Your task to perform on an android device: check the backup settings in the google photos Image 0: 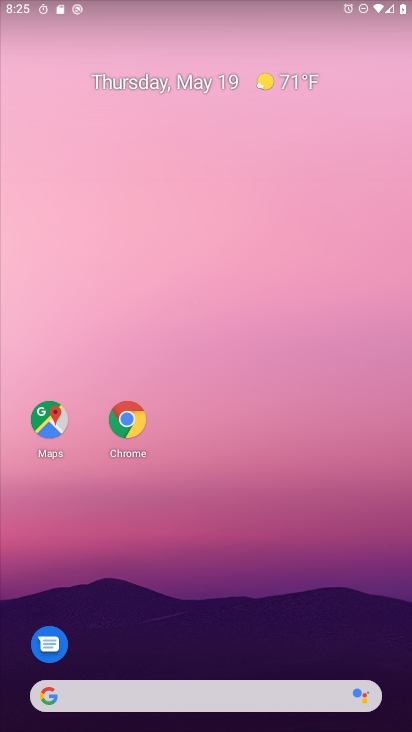
Step 0: drag from (193, 672) to (219, 357)
Your task to perform on an android device: check the backup settings in the google photos Image 1: 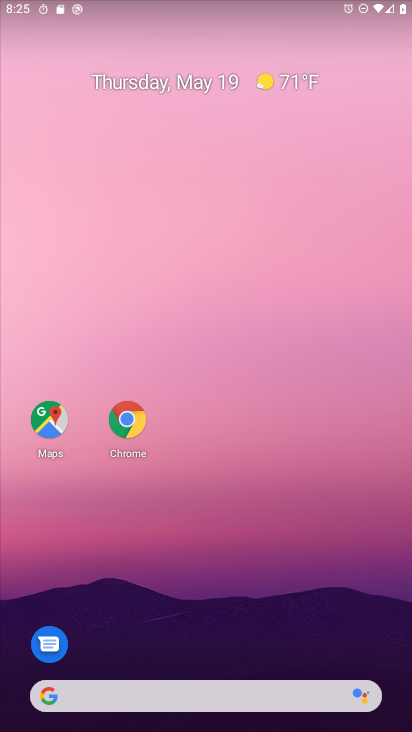
Step 1: drag from (210, 665) to (210, 369)
Your task to perform on an android device: check the backup settings in the google photos Image 2: 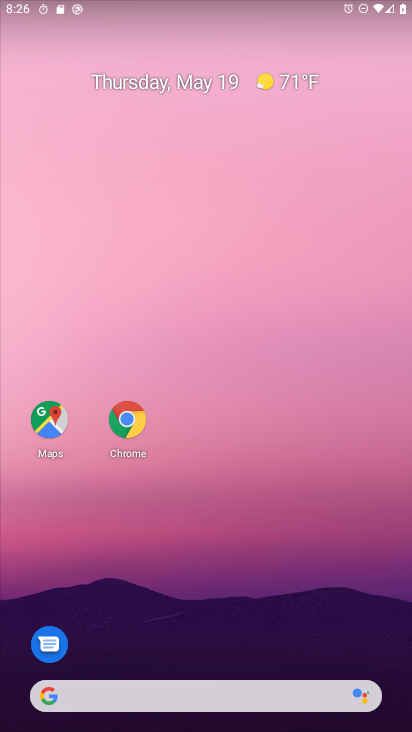
Step 2: drag from (187, 668) to (216, 279)
Your task to perform on an android device: check the backup settings in the google photos Image 3: 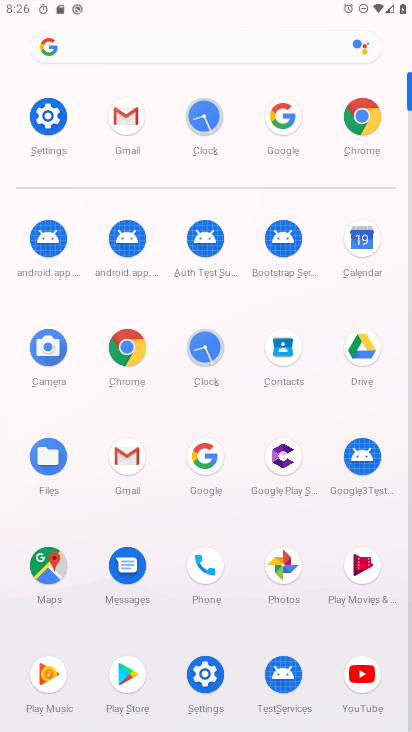
Step 3: click (276, 566)
Your task to perform on an android device: check the backup settings in the google photos Image 4: 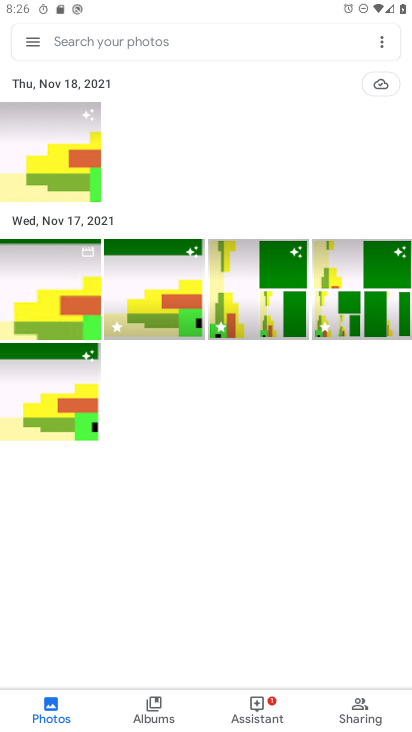
Step 4: click (25, 37)
Your task to perform on an android device: check the backup settings in the google photos Image 5: 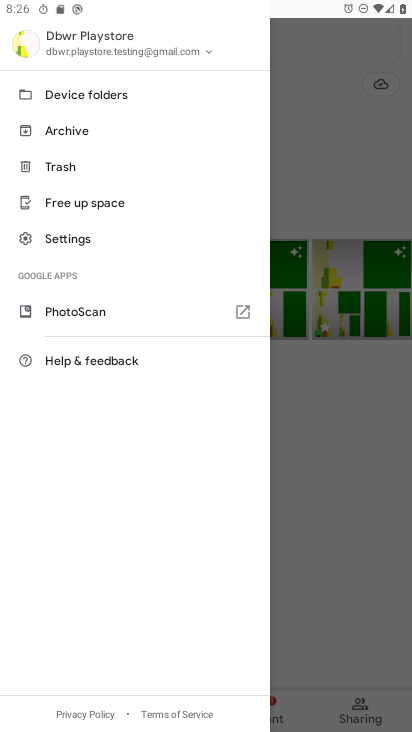
Step 5: click (58, 229)
Your task to perform on an android device: check the backup settings in the google photos Image 6: 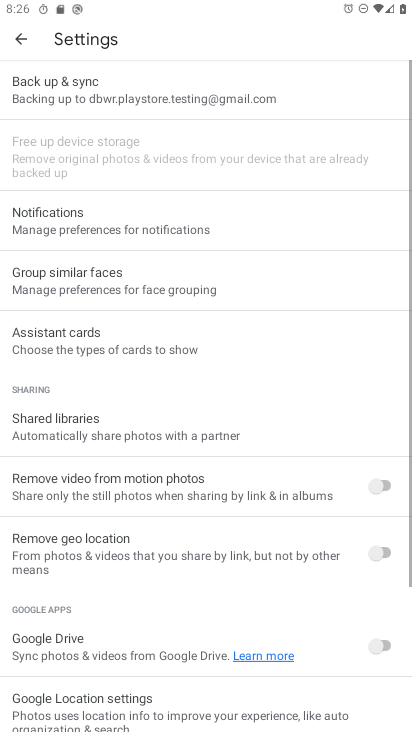
Step 6: click (114, 91)
Your task to perform on an android device: check the backup settings in the google photos Image 7: 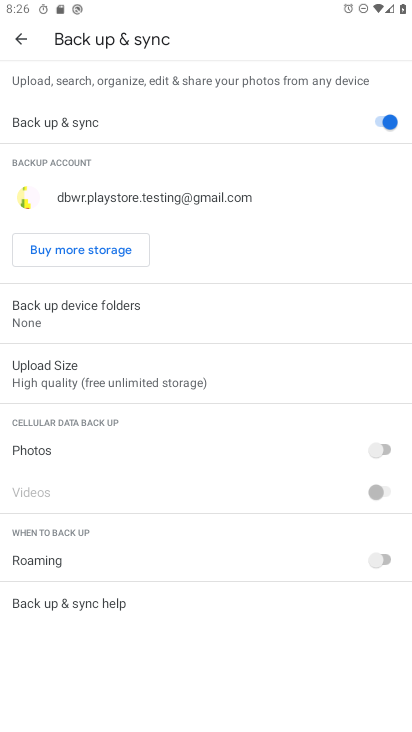
Step 7: task complete